Your task to perform on an android device: What's on my calendar tomorrow? Image 0: 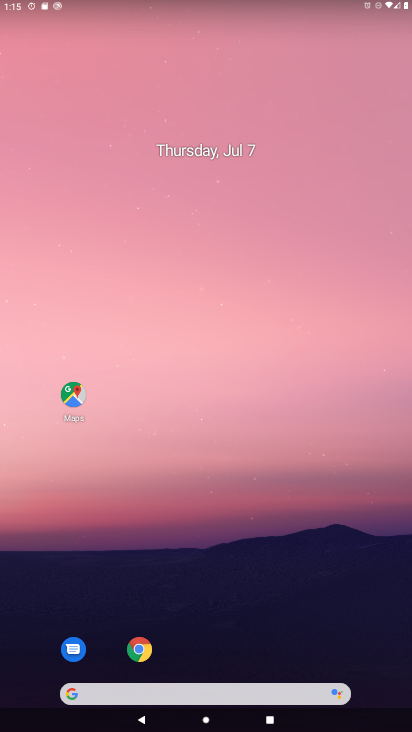
Step 0: drag from (219, 679) to (218, 23)
Your task to perform on an android device: What's on my calendar tomorrow? Image 1: 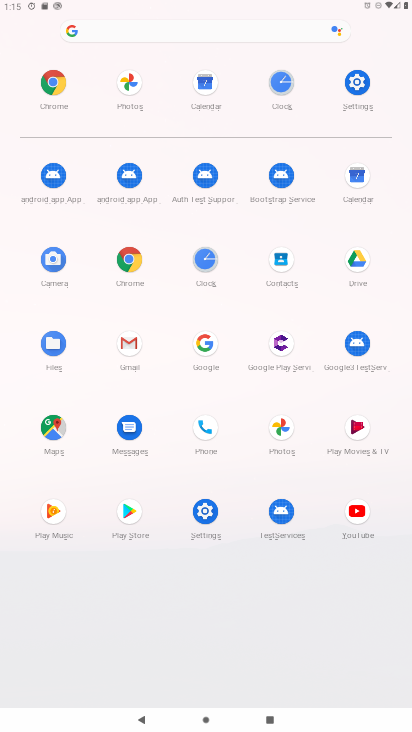
Step 1: click (360, 184)
Your task to perform on an android device: What's on my calendar tomorrow? Image 2: 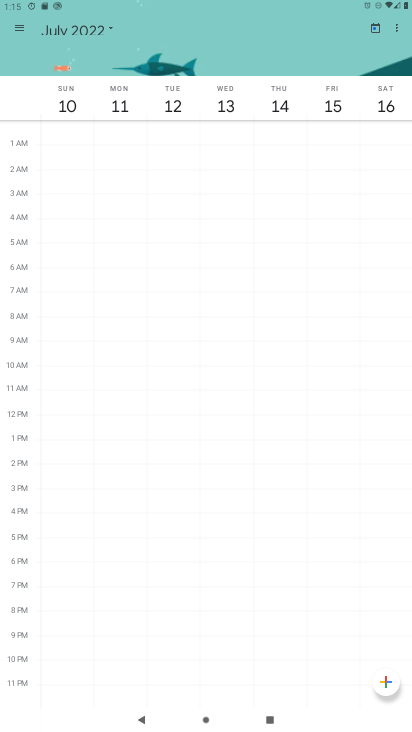
Step 2: click (369, 29)
Your task to perform on an android device: What's on my calendar tomorrow? Image 3: 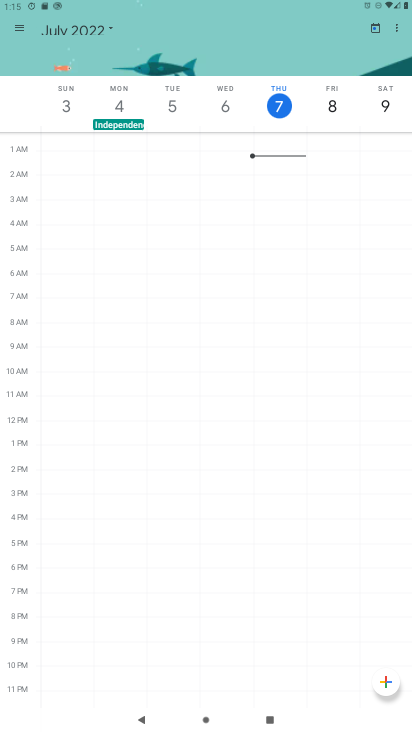
Step 3: click (327, 96)
Your task to perform on an android device: What's on my calendar tomorrow? Image 4: 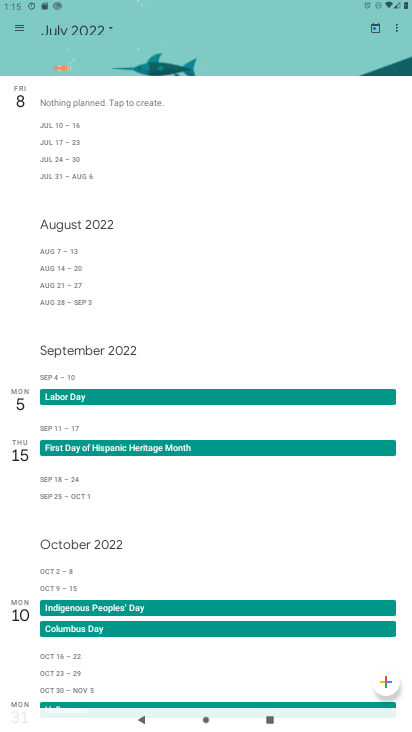
Step 4: task complete